Your task to perform on an android device: Clear the cart on newegg.com. Search for "dell alienware" on newegg.com, select the first entry, and add it to the cart. Image 0: 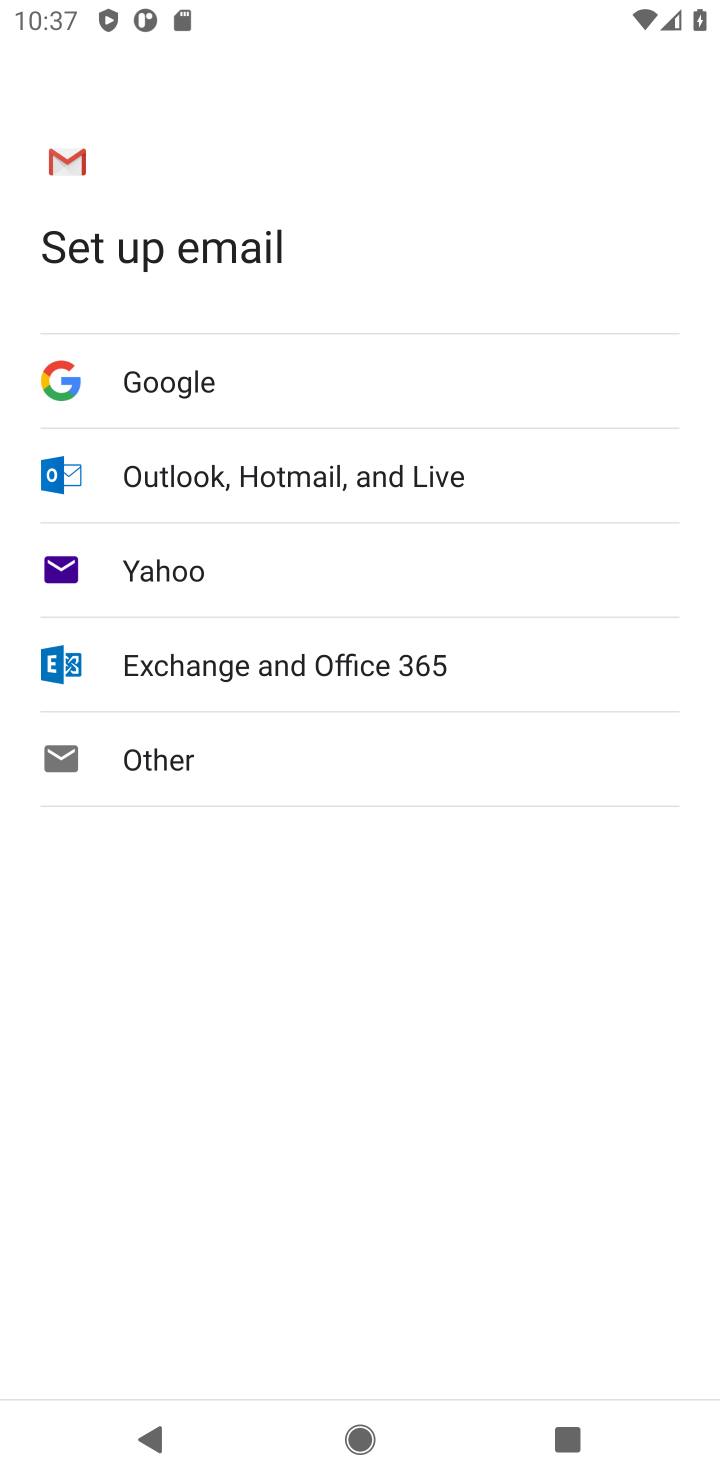
Step 0: press home button
Your task to perform on an android device: Clear the cart on newegg.com. Search for "dell alienware" on newegg.com, select the first entry, and add it to the cart. Image 1: 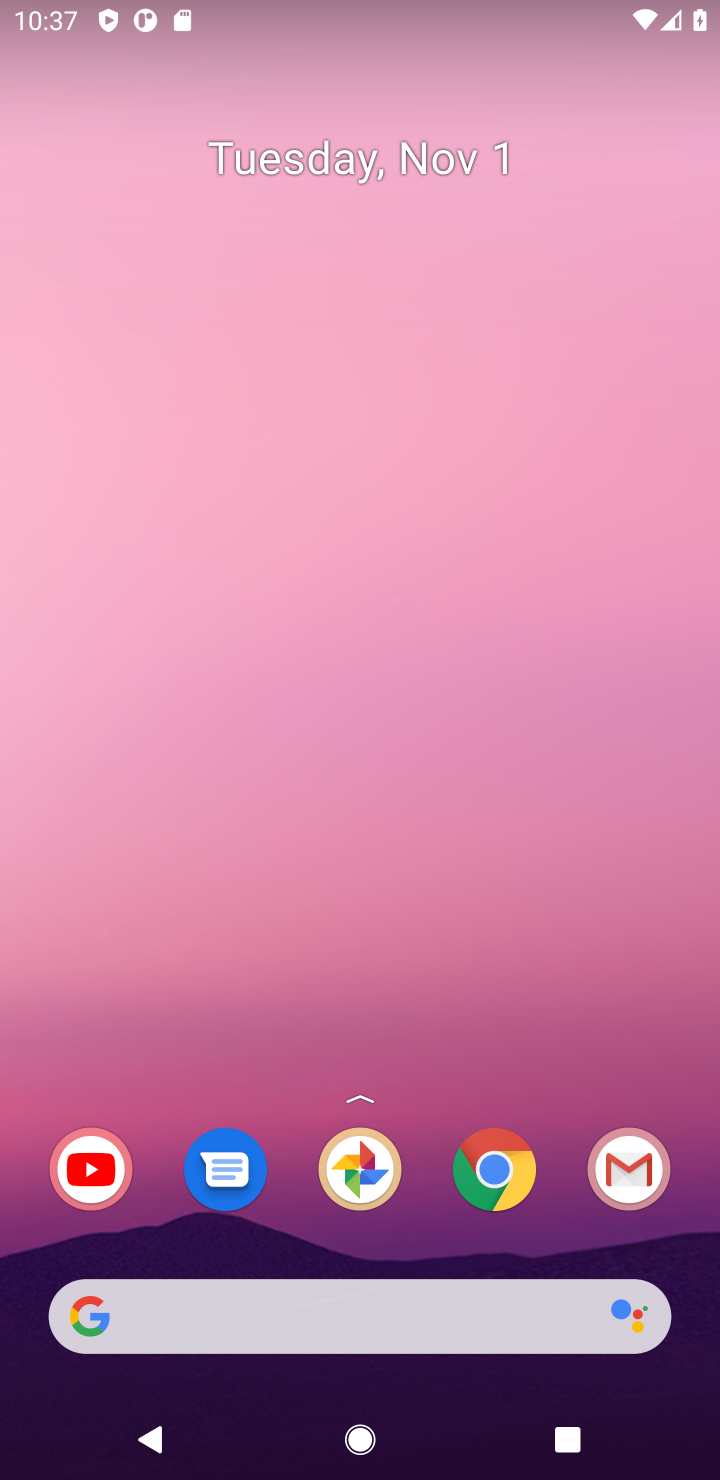
Step 1: click (498, 1166)
Your task to perform on an android device: Clear the cart on newegg.com. Search for "dell alienware" on newegg.com, select the first entry, and add it to the cart. Image 2: 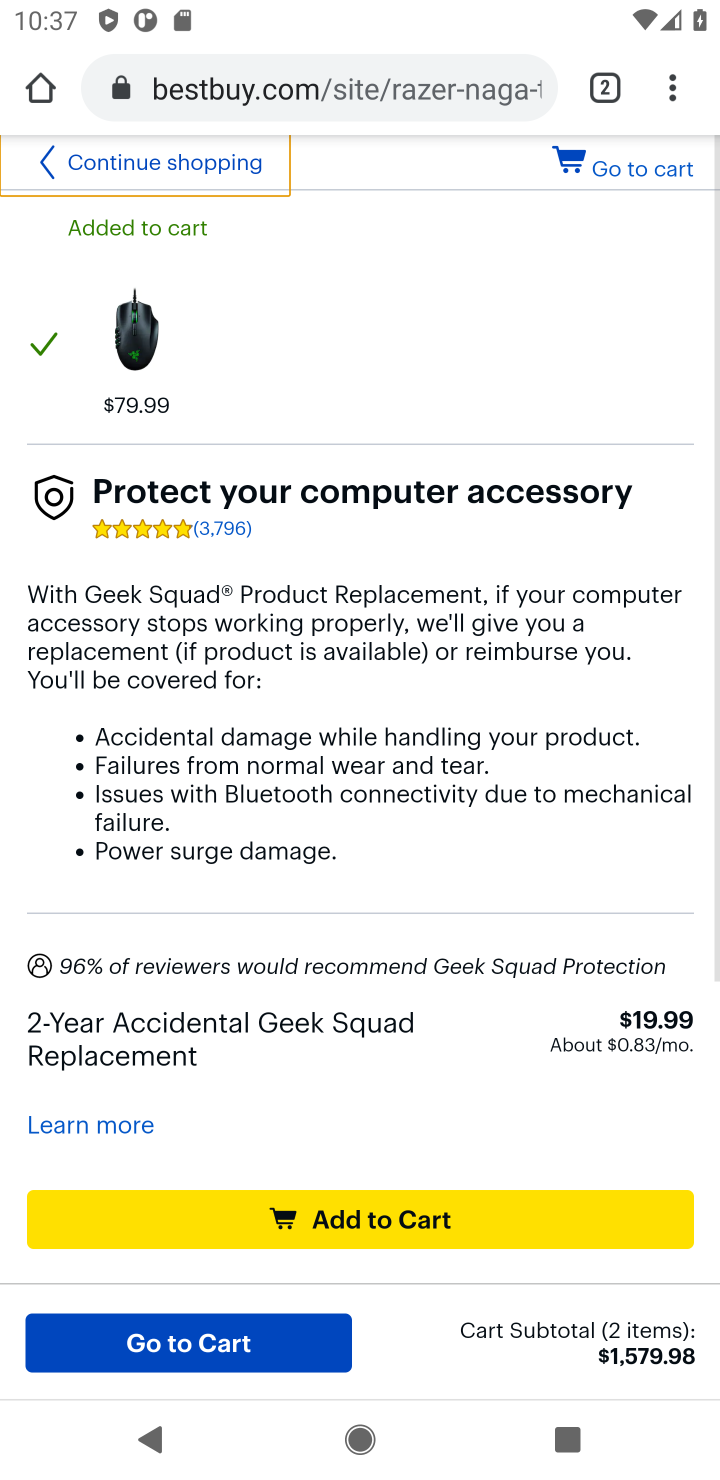
Step 2: click (377, 77)
Your task to perform on an android device: Clear the cart on newegg.com. Search for "dell alienware" on newegg.com, select the first entry, and add it to the cart. Image 3: 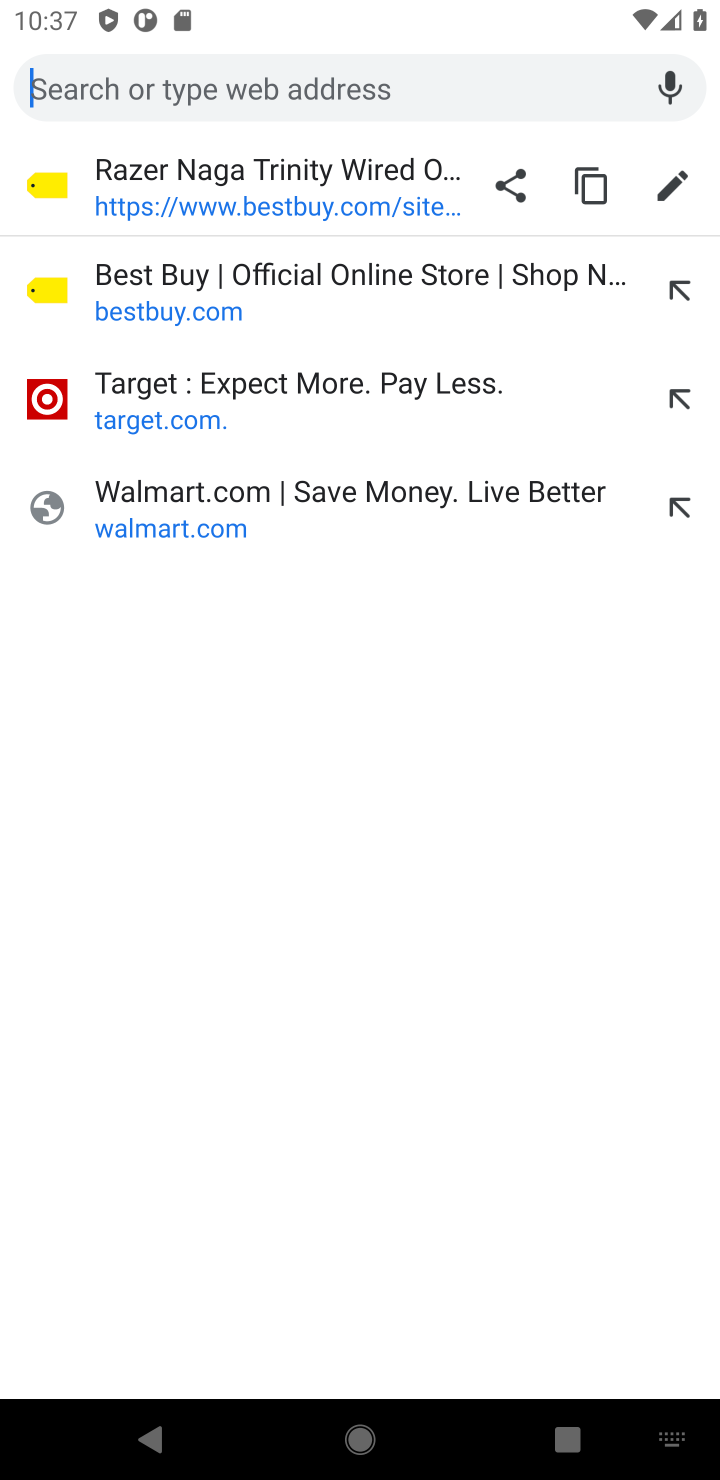
Step 3: type "newegg"
Your task to perform on an android device: Clear the cart on newegg.com. Search for "dell alienware" on newegg.com, select the first entry, and add it to the cart. Image 4: 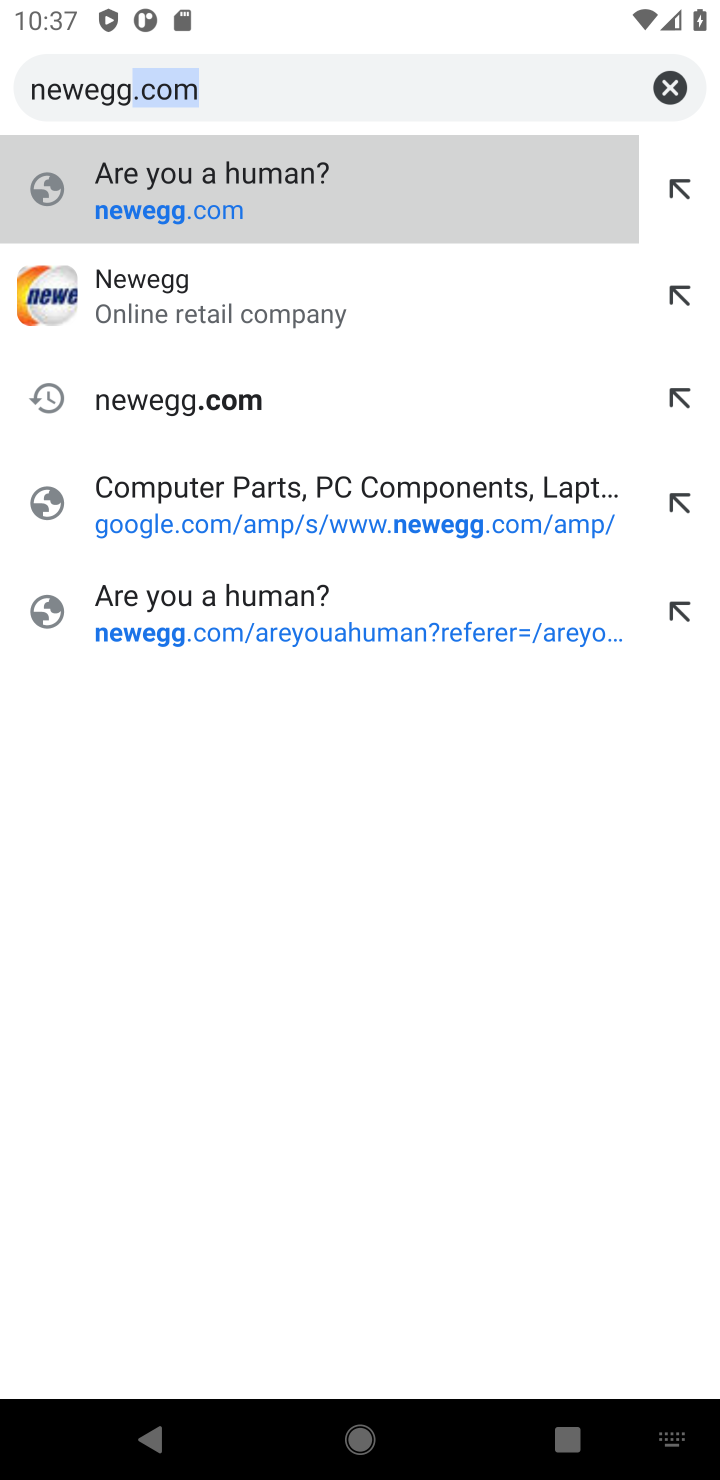
Step 4: click (219, 394)
Your task to perform on an android device: Clear the cart on newegg.com. Search for "dell alienware" on newegg.com, select the first entry, and add it to the cart. Image 5: 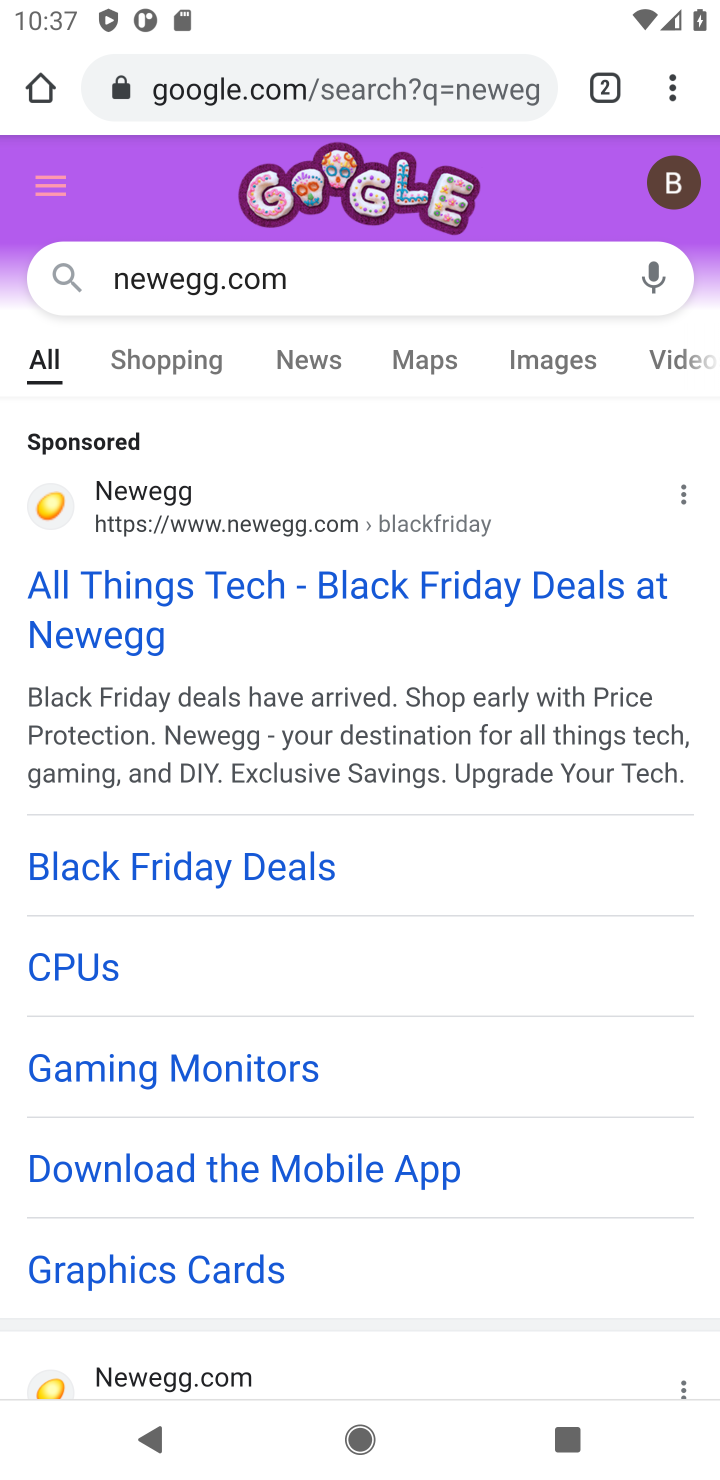
Step 5: drag from (354, 897) to (354, 499)
Your task to perform on an android device: Clear the cart on newegg.com. Search for "dell alienware" on newegg.com, select the first entry, and add it to the cart. Image 6: 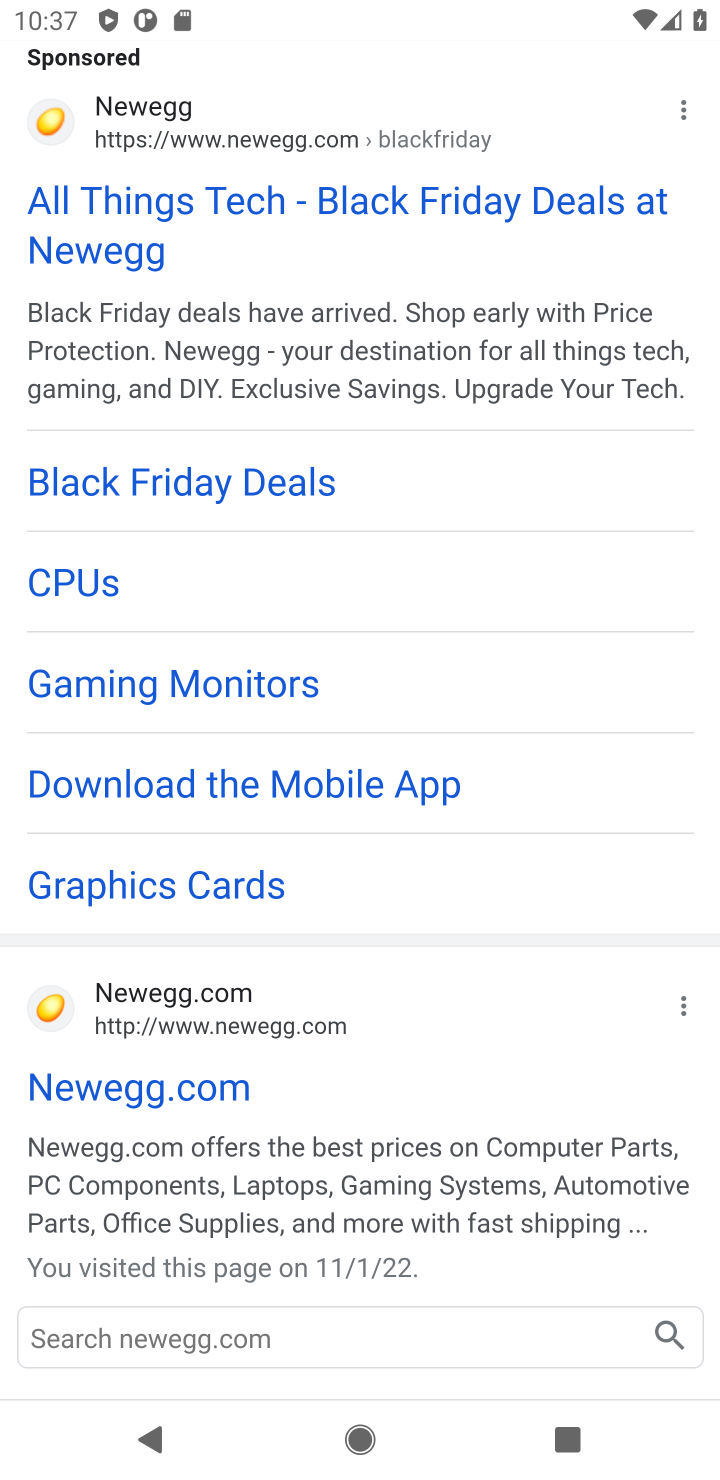
Step 6: click (201, 996)
Your task to perform on an android device: Clear the cart on newegg.com. Search for "dell alienware" on newegg.com, select the first entry, and add it to the cart. Image 7: 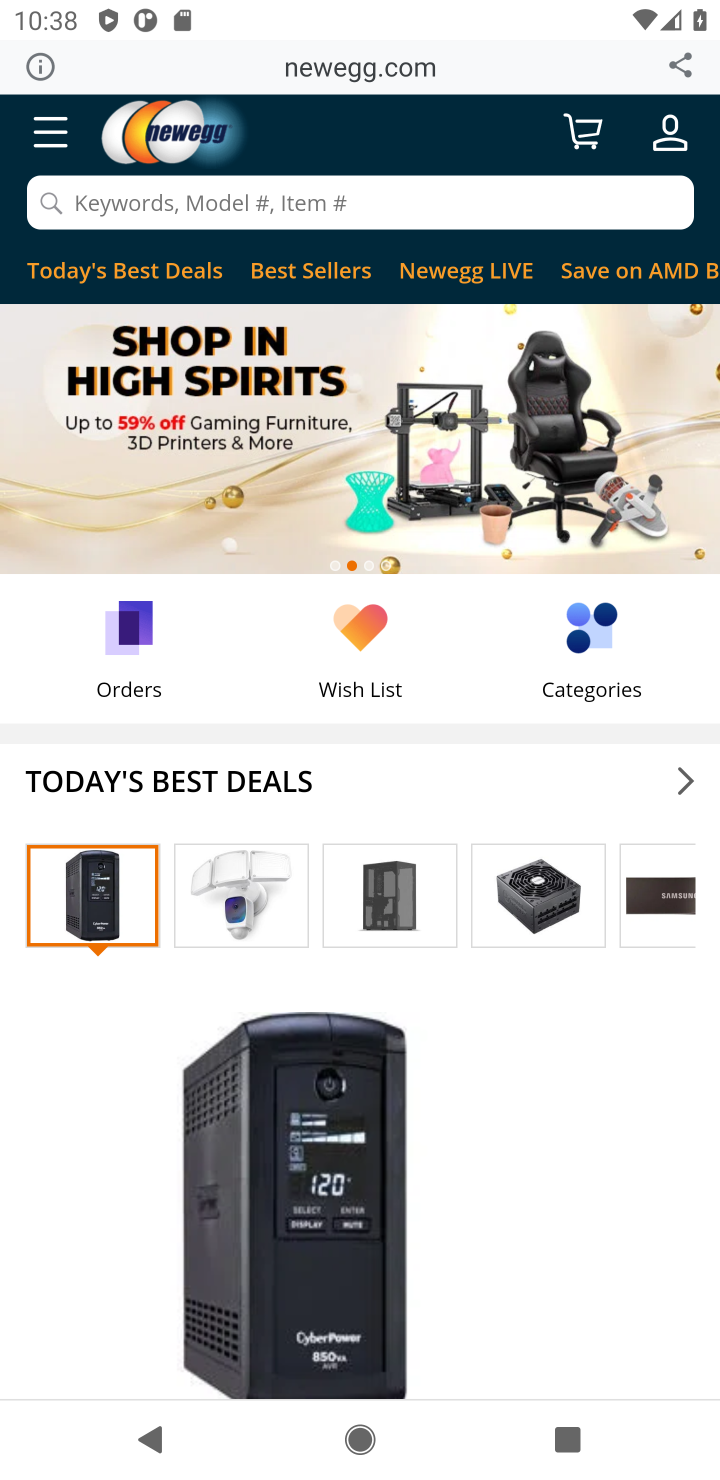
Step 7: click (575, 130)
Your task to perform on an android device: Clear the cart on newegg.com. Search for "dell alienware" on newegg.com, select the first entry, and add it to the cart. Image 8: 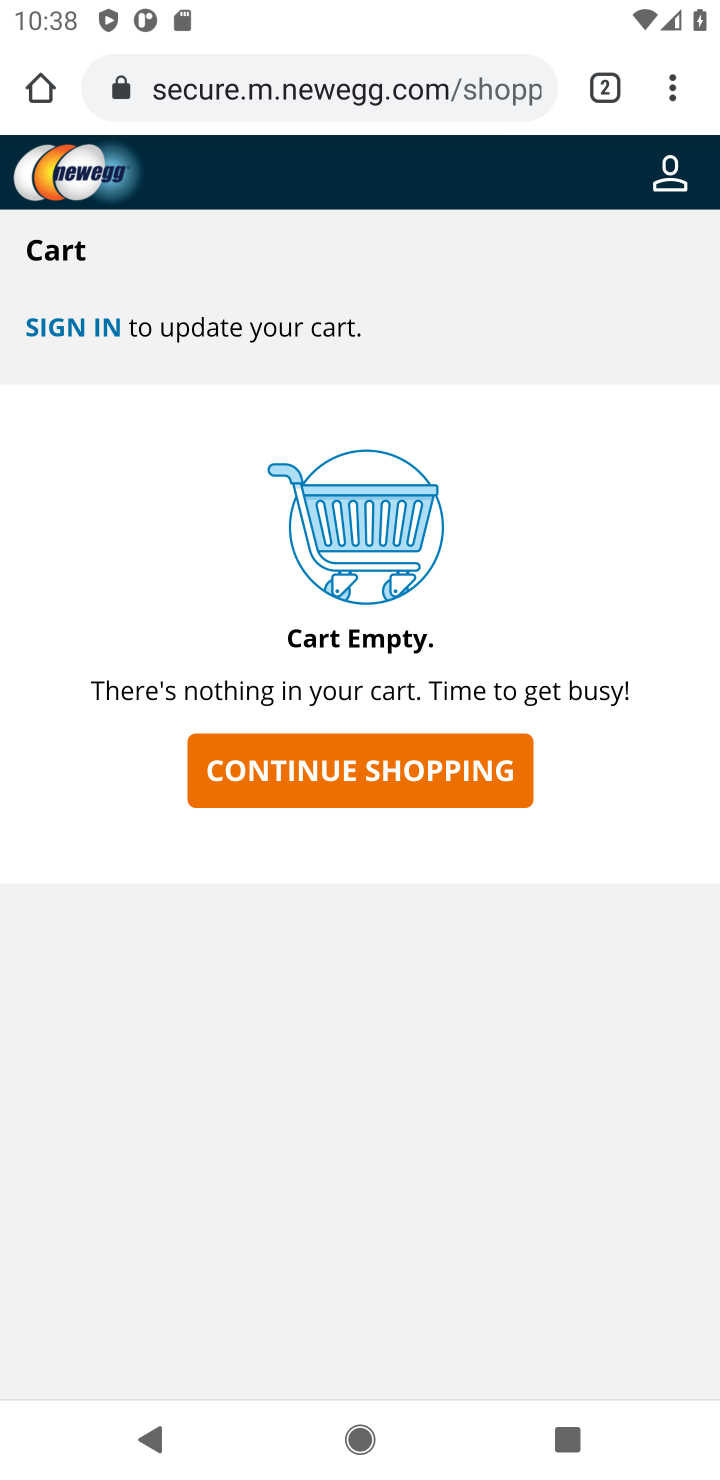
Step 8: press back button
Your task to perform on an android device: Clear the cart on newegg.com. Search for "dell alienware" on newegg.com, select the first entry, and add it to the cart. Image 9: 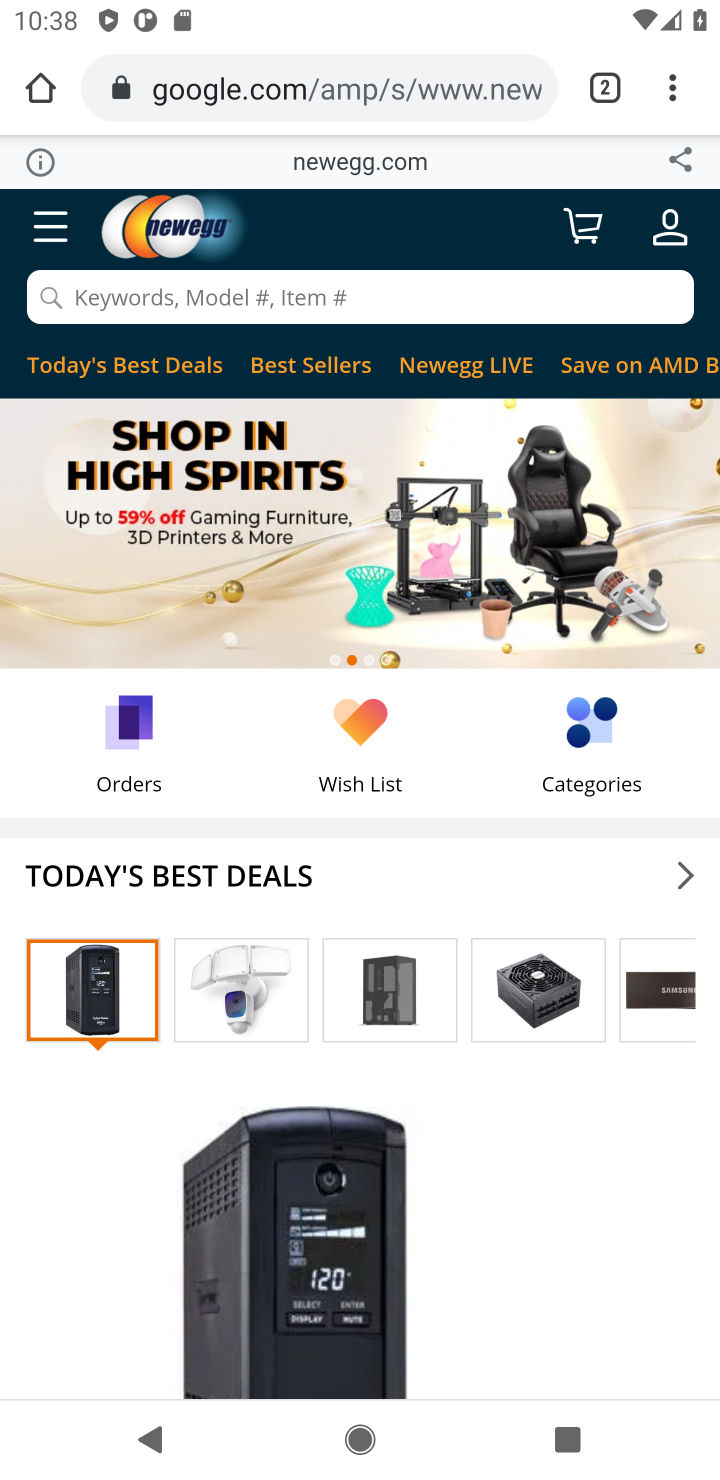
Step 9: click (360, 305)
Your task to perform on an android device: Clear the cart on newegg.com. Search for "dell alienware" on newegg.com, select the first entry, and add it to the cart. Image 10: 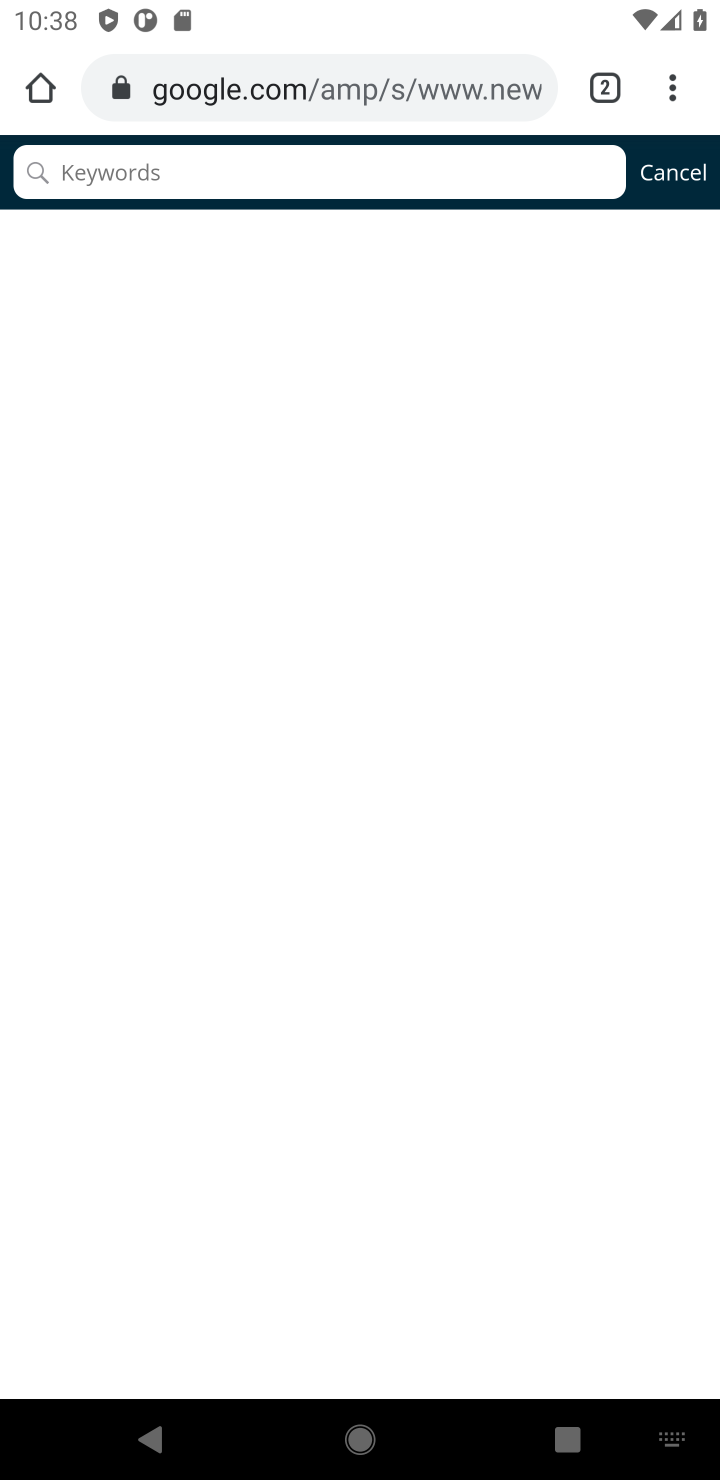
Step 10: type "dell alienware"
Your task to perform on an android device: Clear the cart on newegg.com. Search for "dell alienware" on newegg.com, select the first entry, and add it to the cart. Image 11: 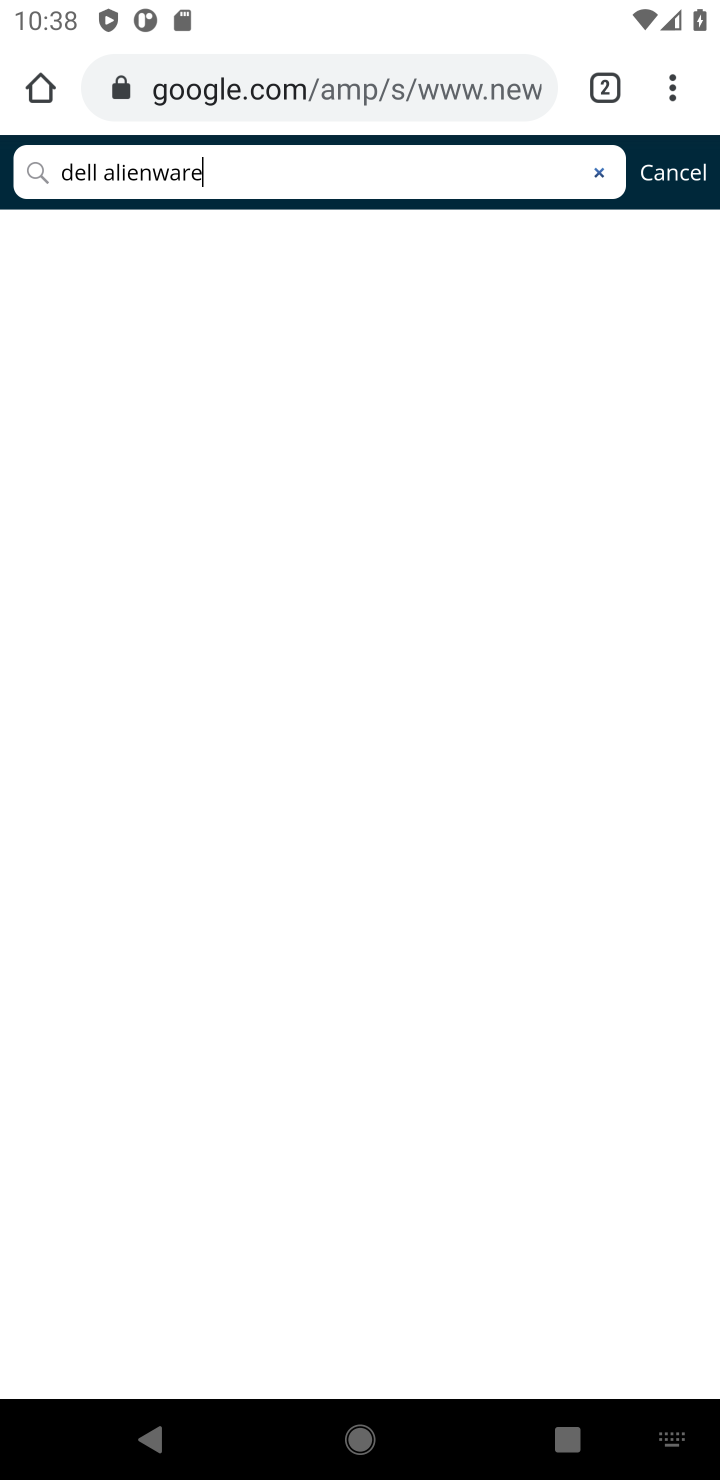
Step 11: click (503, 557)
Your task to perform on an android device: Clear the cart on newegg.com. Search for "dell alienware" on newegg.com, select the first entry, and add it to the cart. Image 12: 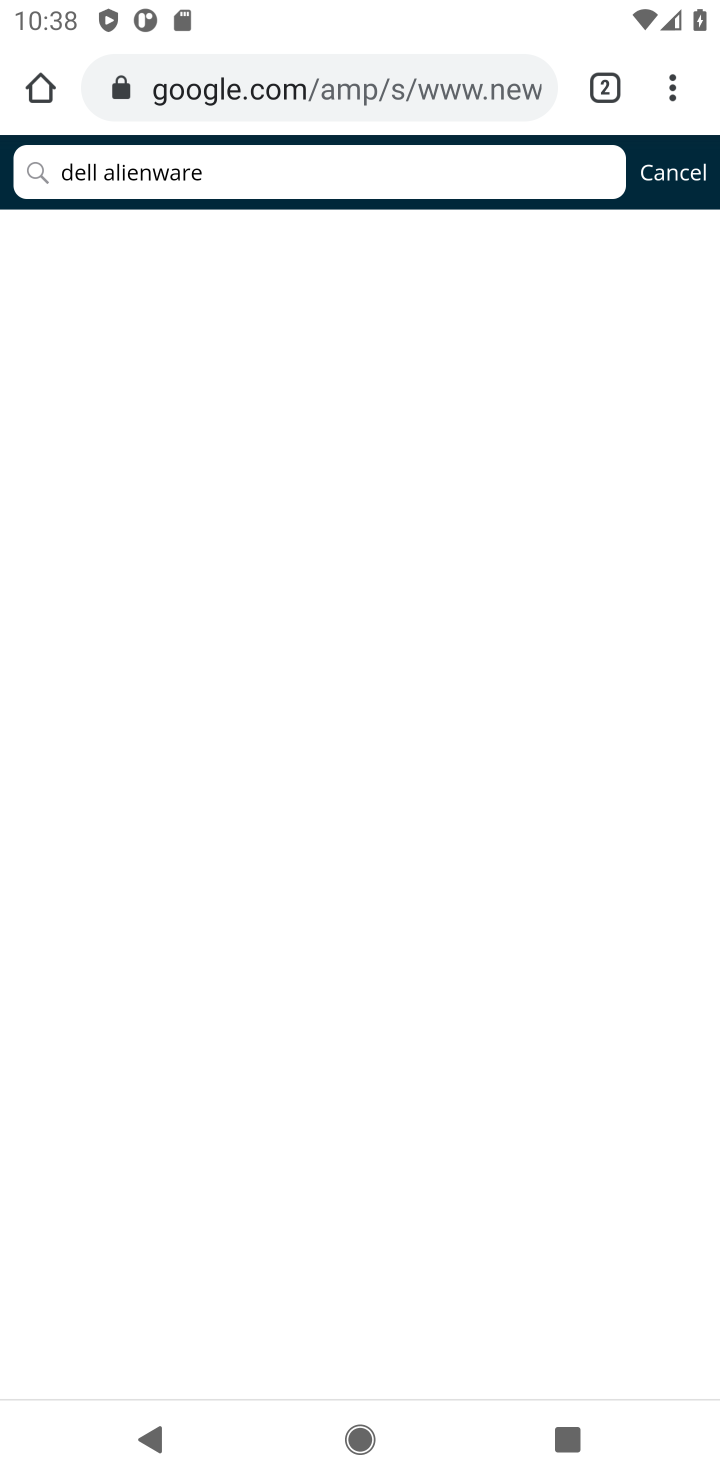
Step 12: click (503, 184)
Your task to perform on an android device: Clear the cart on newegg.com. Search for "dell alienware" on newegg.com, select the first entry, and add it to the cart. Image 13: 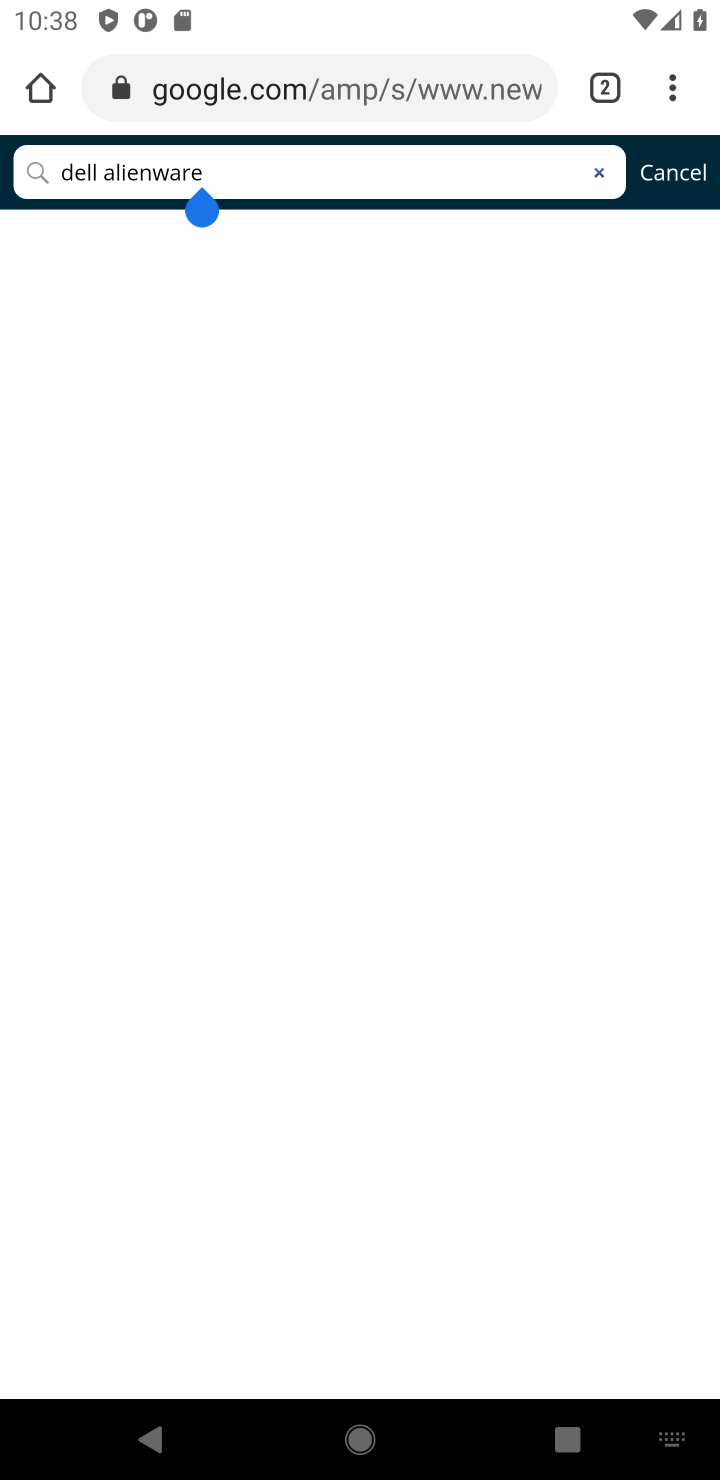
Step 13: task complete